Your task to perform on an android device: Open sound settings Image 0: 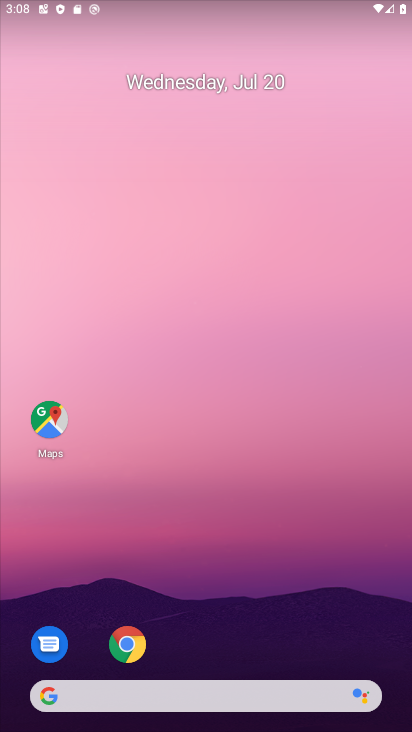
Step 0: drag from (190, 671) to (127, 287)
Your task to perform on an android device: Open sound settings Image 1: 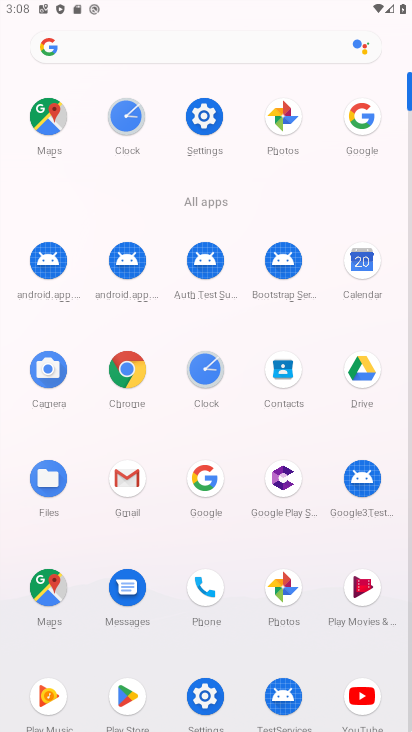
Step 1: click (203, 118)
Your task to perform on an android device: Open sound settings Image 2: 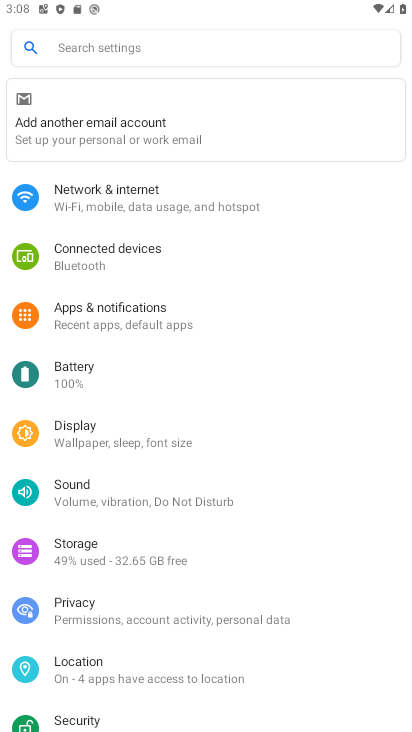
Step 2: drag from (72, 724) to (62, 438)
Your task to perform on an android device: Open sound settings Image 3: 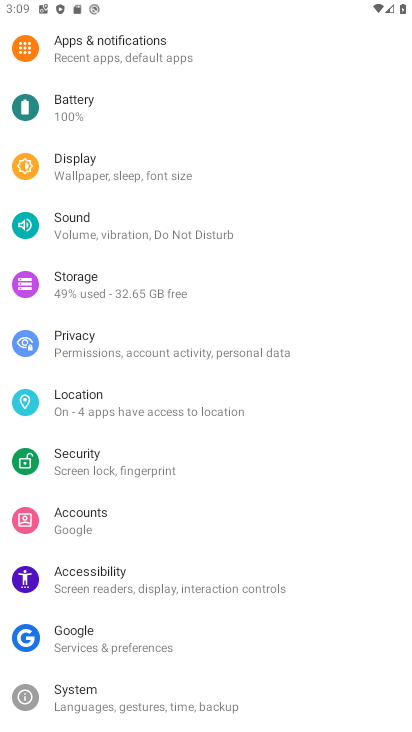
Step 3: click (73, 235)
Your task to perform on an android device: Open sound settings Image 4: 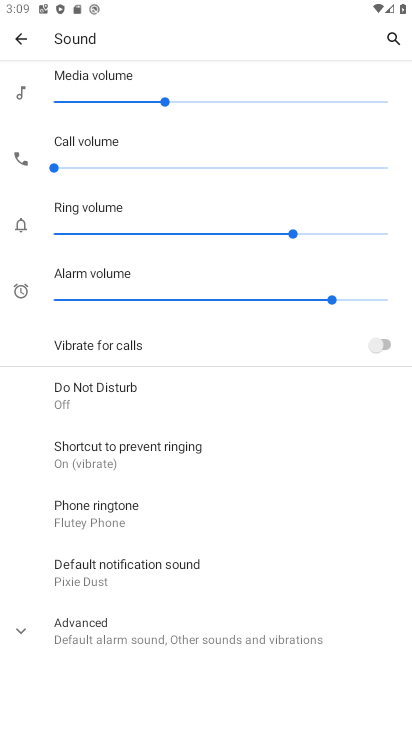
Step 4: click (92, 627)
Your task to perform on an android device: Open sound settings Image 5: 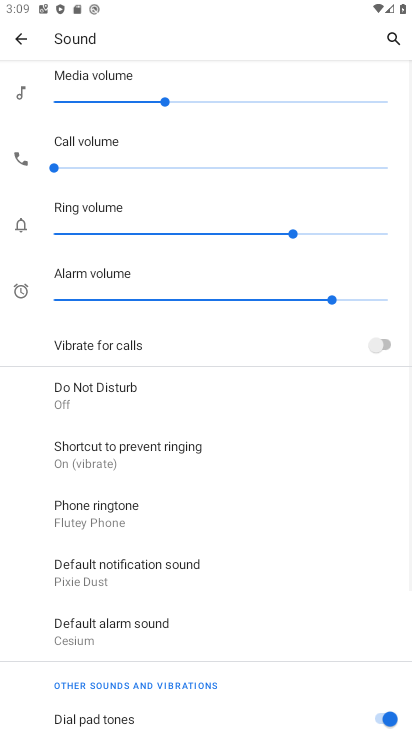
Step 5: task complete